Your task to perform on an android device: Is it going to rain this weekend? Image 0: 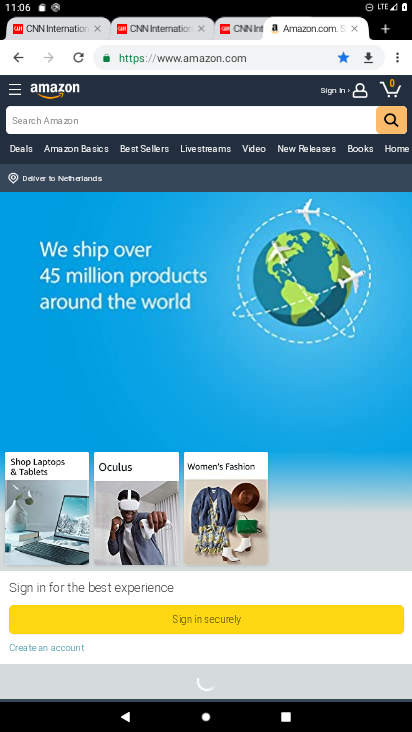
Step 0: press home button
Your task to perform on an android device: Is it going to rain this weekend? Image 1: 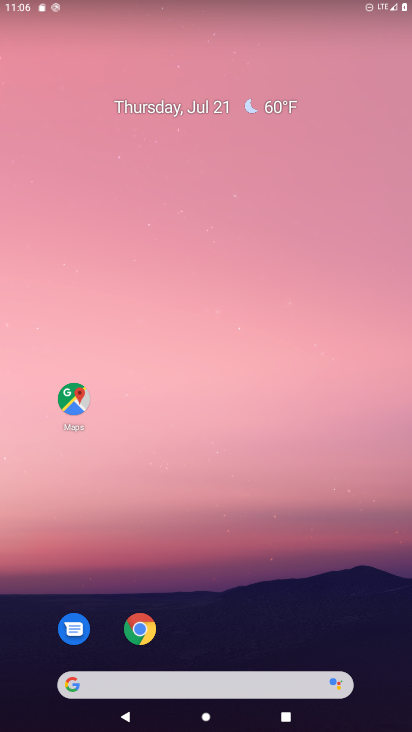
Step 1: click (64, 686)
Your task to perform on an android device: Is it going to rain this weekend? Image 2: 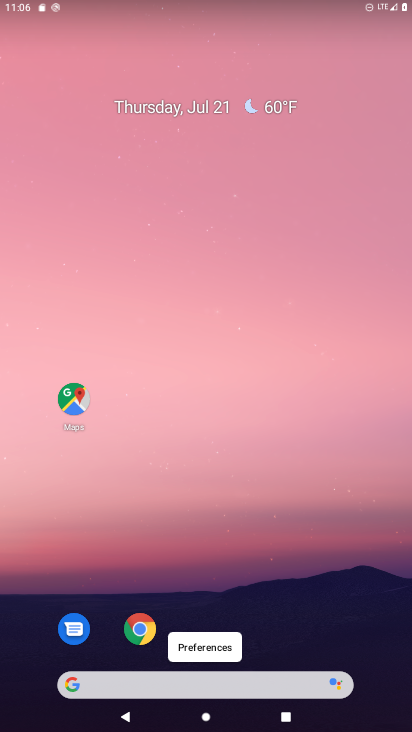
Step 2: click (72, 693)
Your task to perform on an android device: Is it going to rain this weekend? Image 3: 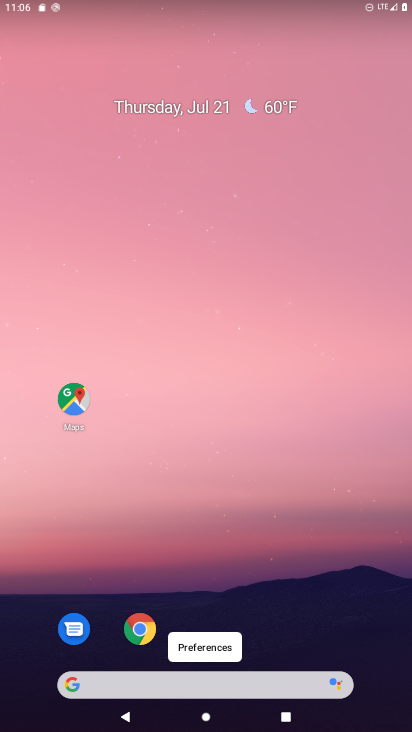
Step 3: click (63, 692)
Your task to perform on an android device: Is it going to rain this weekend? Image 4: 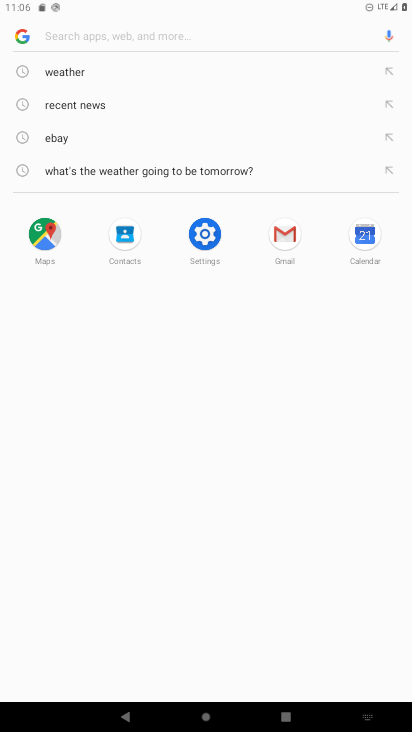
Step 4: type "Is it going to rain this weekend?"
Your task to perform on an android device: Is it going to rain this weekend? Image 5: 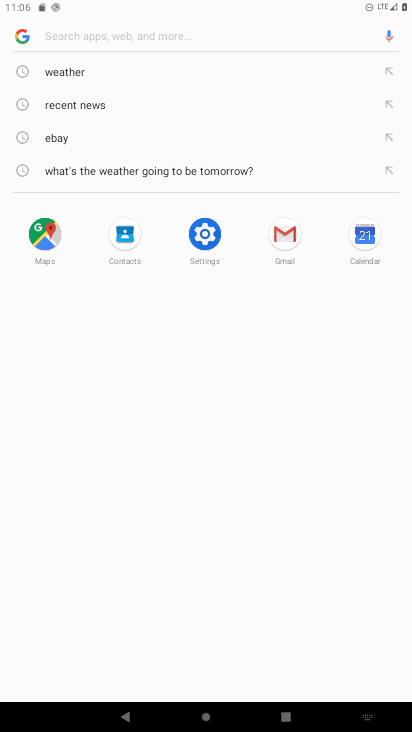
Step 5: click (78, 31)
Your task to perform on an android device: Is it going to rain this weekend? Image 6: 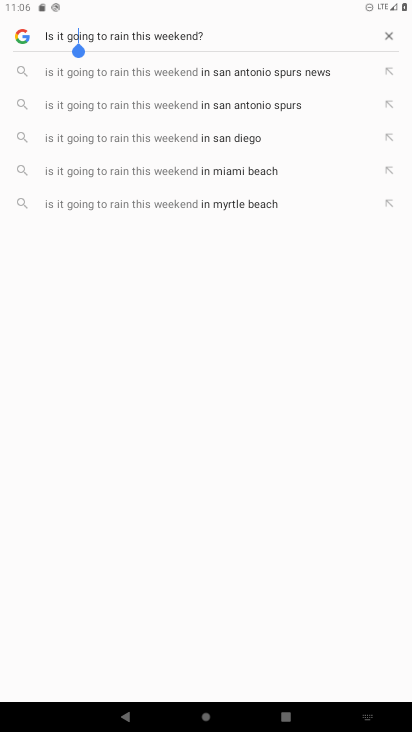
Step 6: press enter
Your task to perform on an android device: Is it going to rain this weekend? Image 7: 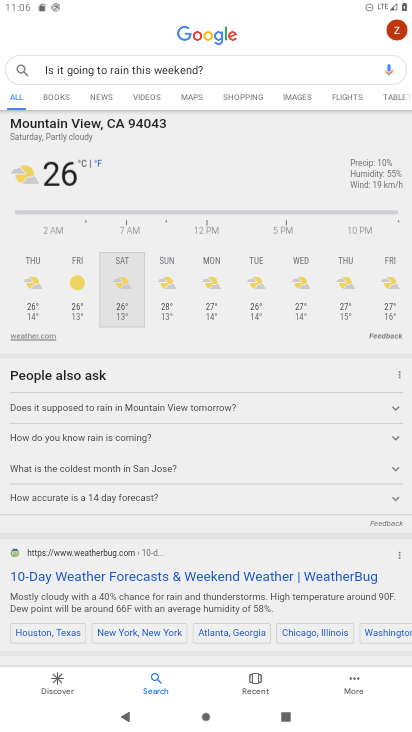
Step 7: task complete